Your task to perform on an android device: find snoozed emails in the gmail app Image 0: 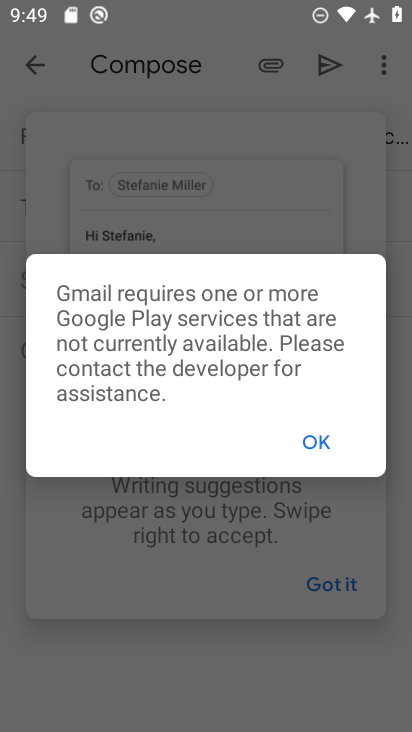
Step 0: click (318, 444)
Your task to perform on an android device: find snoozed emails in the gmail app Image 1: 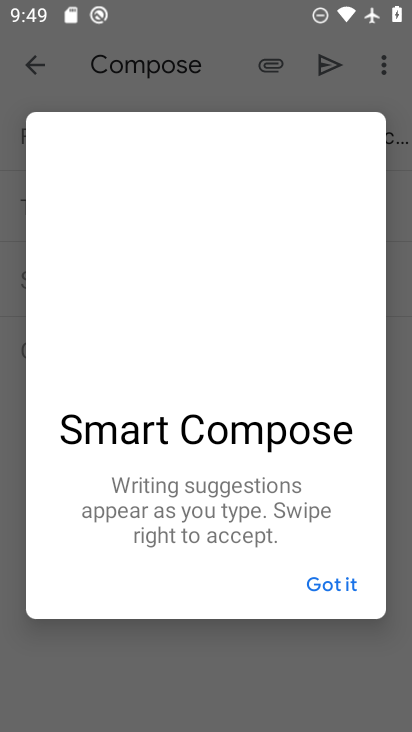
Step 1: press home button
Your task to perform on an android device: find snoozed emails in the gmail app Image 2: 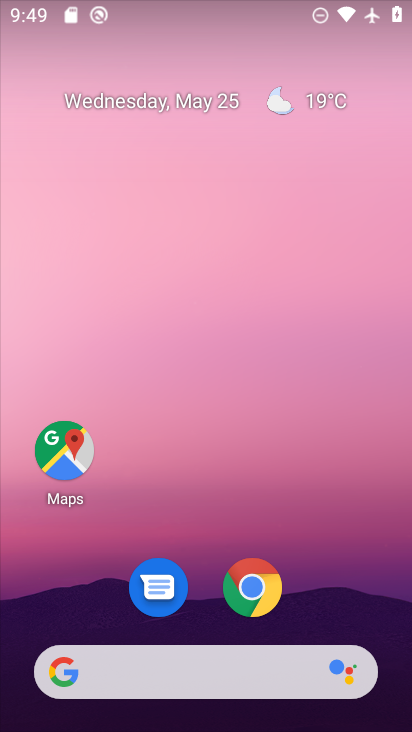
Step 2: drag from (383, 632) to (314, 37)
Your task to perform on an android device: find snoozed emails in the gmail app Image 3: 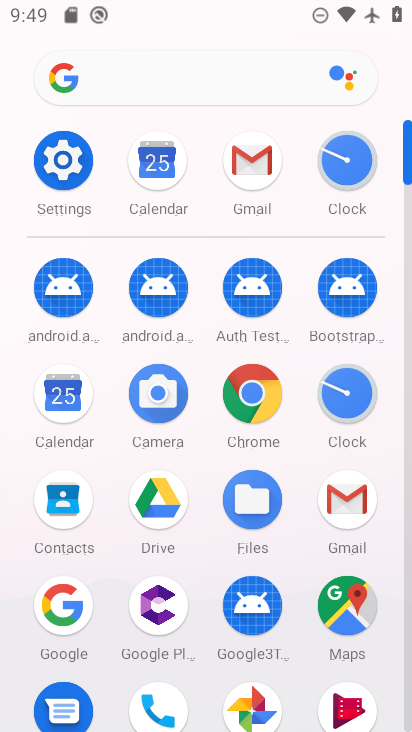
Step 3: click (408, 708)
Your task to perform on an android device: find snoozed emails in the gmail app Image 4: 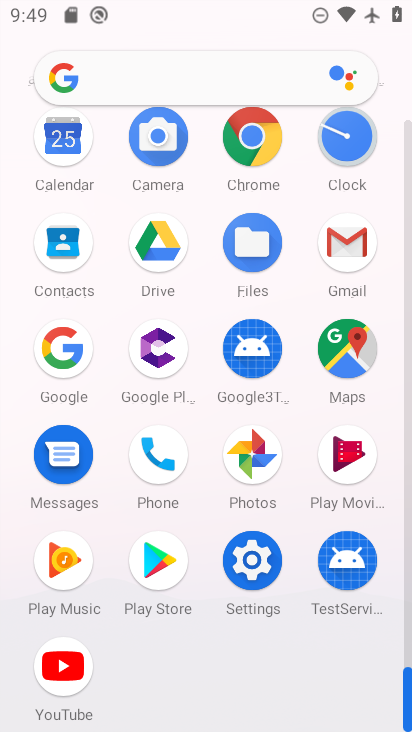
Step 4: click (345, 242)
Your task to perform on an android device: find snoozed emails in the gmail app Image 5: 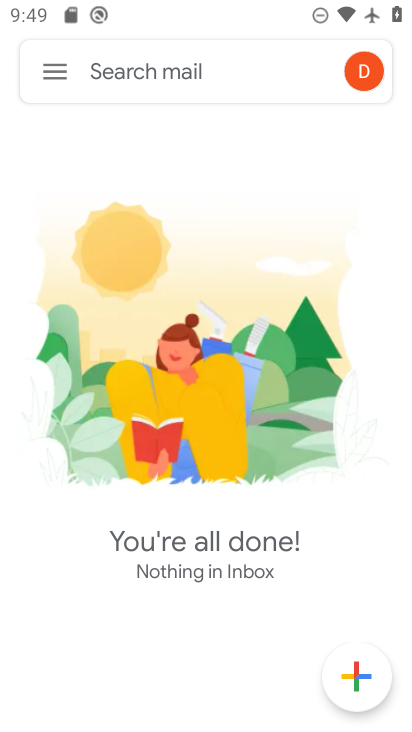
Step 5: click (49, 75)
Your task to perform on an android device: find snoozed emails in the gmail app Image 6: 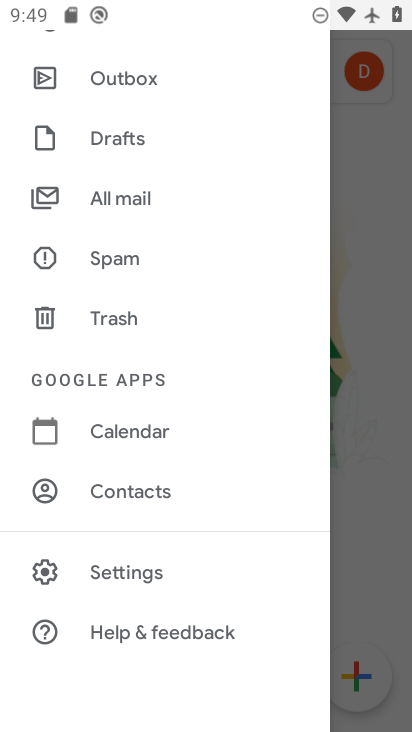
Step 6: drag from (223, 267) to (206, 539)
Your task to perform on an android device: find snoozed emails in the gmail app Image 7: 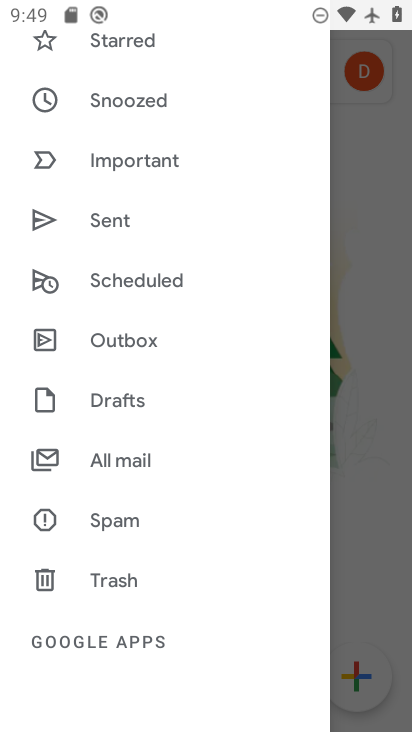
Step 7: click (123, 93)
Your task to perform on an android device: find snoozed emails in the gmail app Image 8: 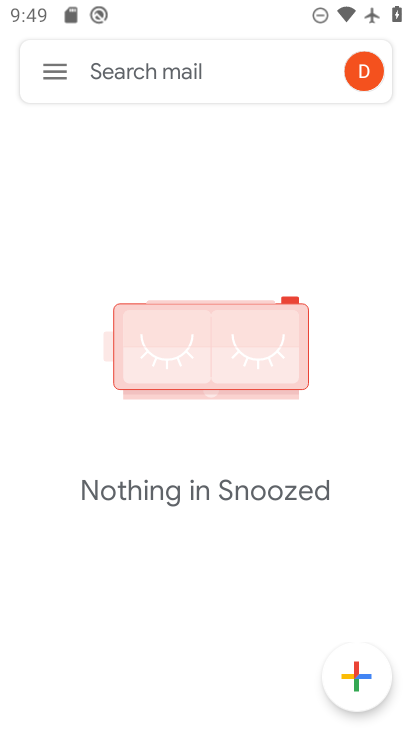
Step 8: task complete